Your task to perform on an android device: Go to Android settings Image 0: 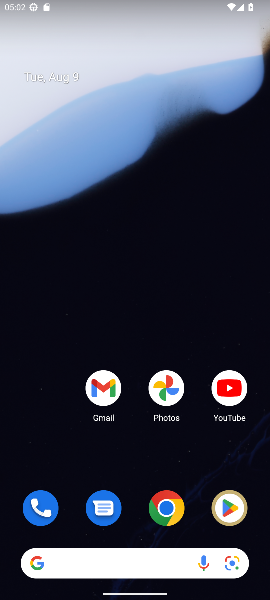
Step 0: drag from (139, 469) to (138, 76)
Your task to perform on an android device: Go to Android settings Image 1: 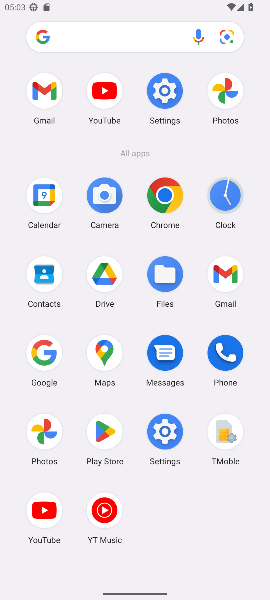
Step 1: click (163, 441)
Your task to perform on an android device: Go to Android settings Image 2: 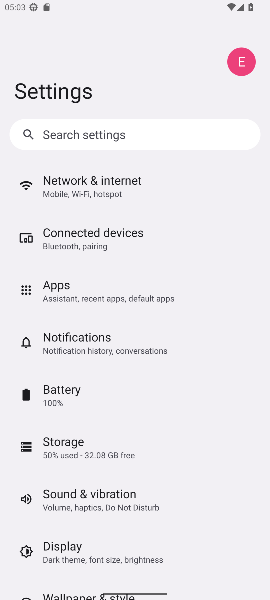
Step 2: drag from (131, 532) to (101, 246)
Your task to perform on an android device: Go to Android settings Image 3: 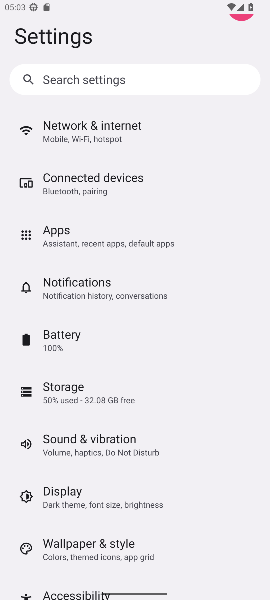
Step 3: drag from (104, 503) to (100, 241)
Your task to perform on an android device: Go to Android settings Image 4: 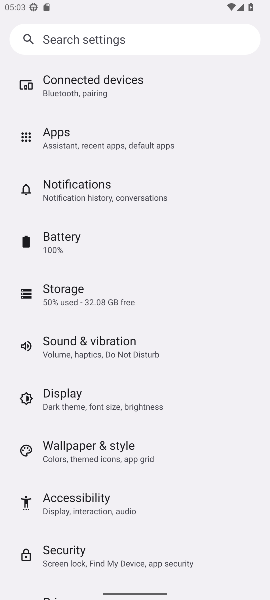
Step 4: drag from (96, 534) to (92, 297)
Your task to perform on an android device: Go to Android settings Image 5: 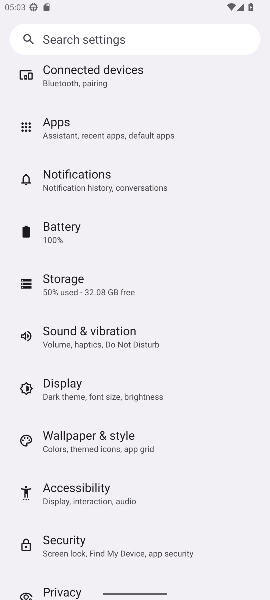
Step 5: drag from (81, 542) to (81, 180)
Your task to perform on an android device: Go to Android settings Image 6: 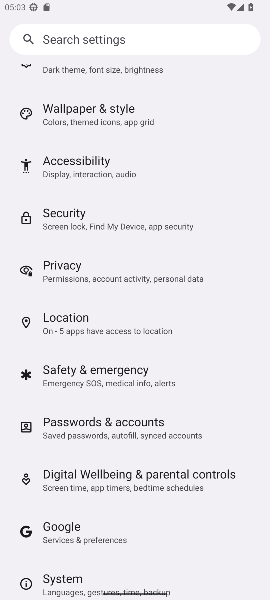
Step 6: click (58, 582)
Your task to perform on an android device: Go to Android settings Image 7: 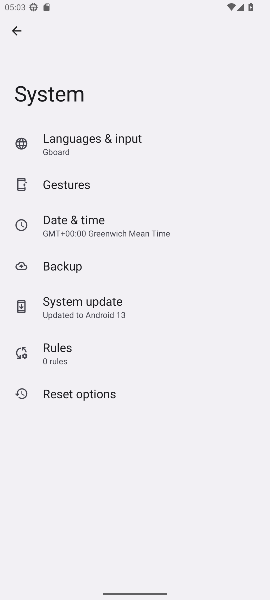
Step 7: task complete